Your task to perform on an android device: install app "Messages" Image 0: 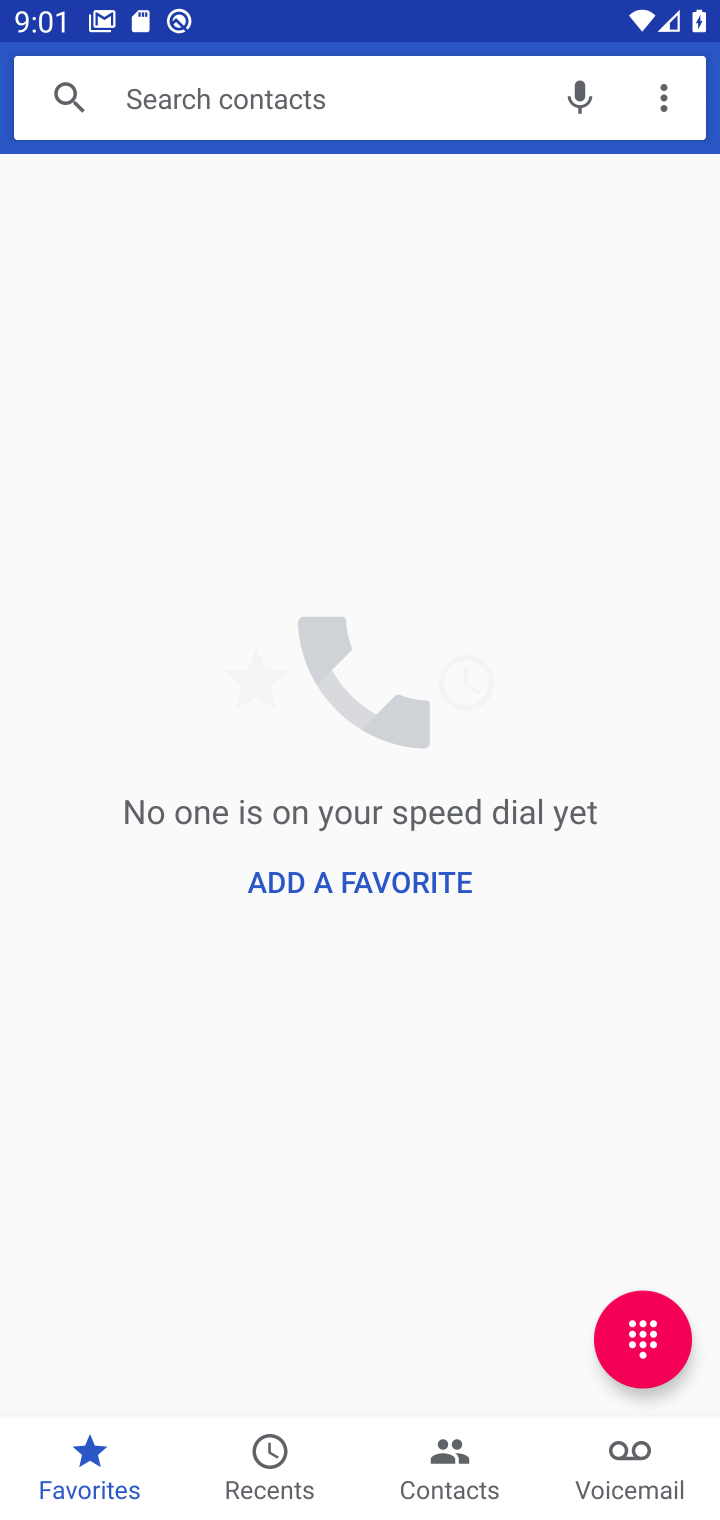
Step 0: press home button
Your task to perform on an android device: install app "Messages" Image 1: 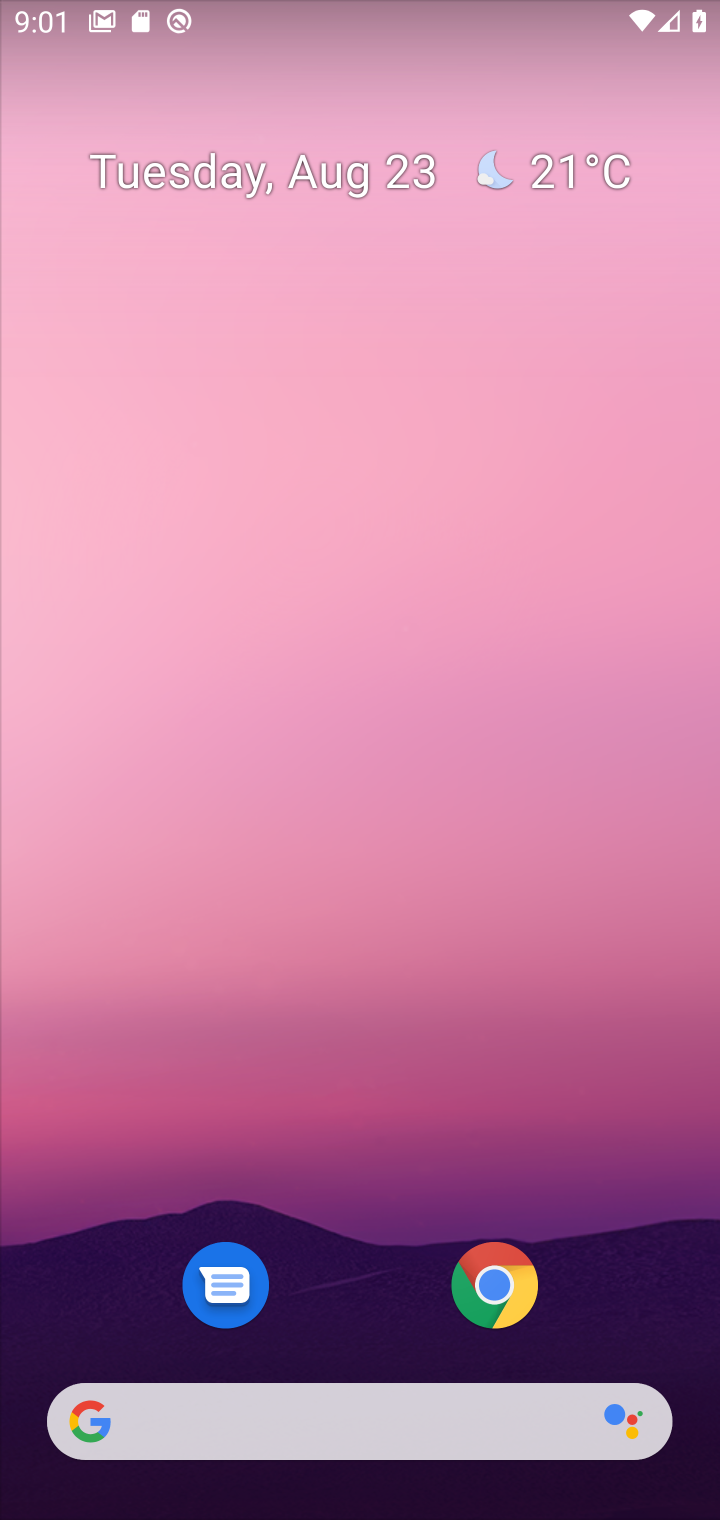
Step 1: drag from (627, 1072) to (574, 261)
Your task to perform on an android device: install app "Messages" Image 2: 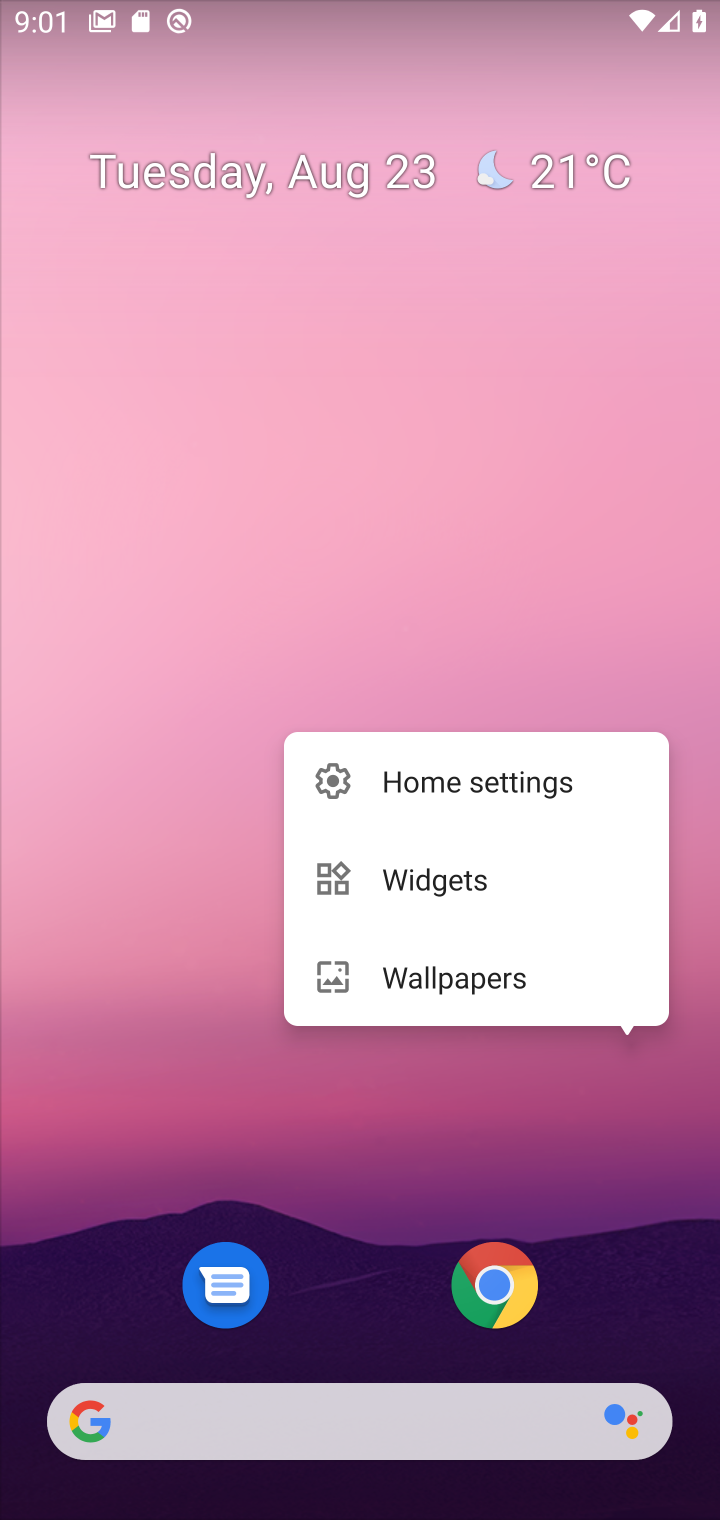
Step 2: click (675, 1329)
Your task to perform on an android device: install app "Messages" Image 3: 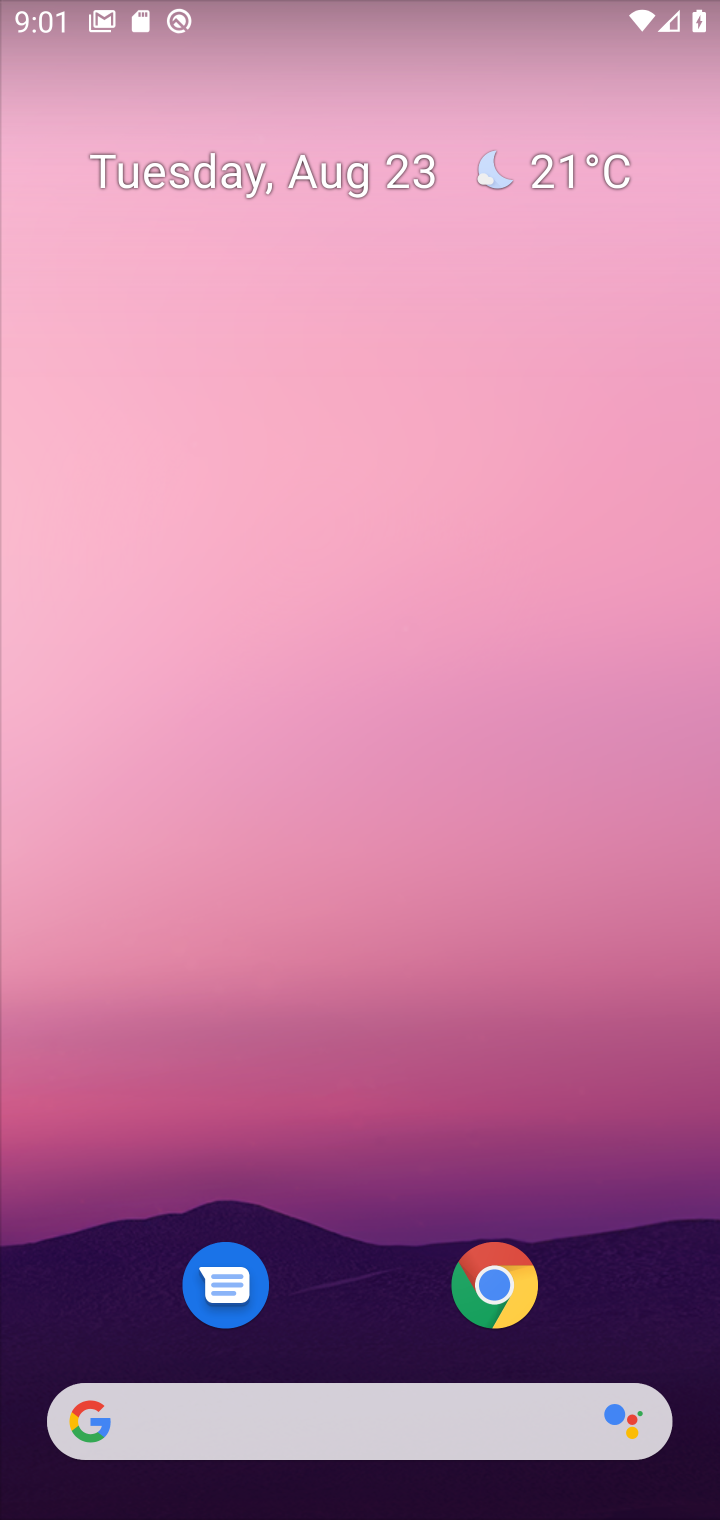
Step 3: drag from (686, 1334) to (564, 151)
Your task to perform on an android device: install app "Messages" Image 4: 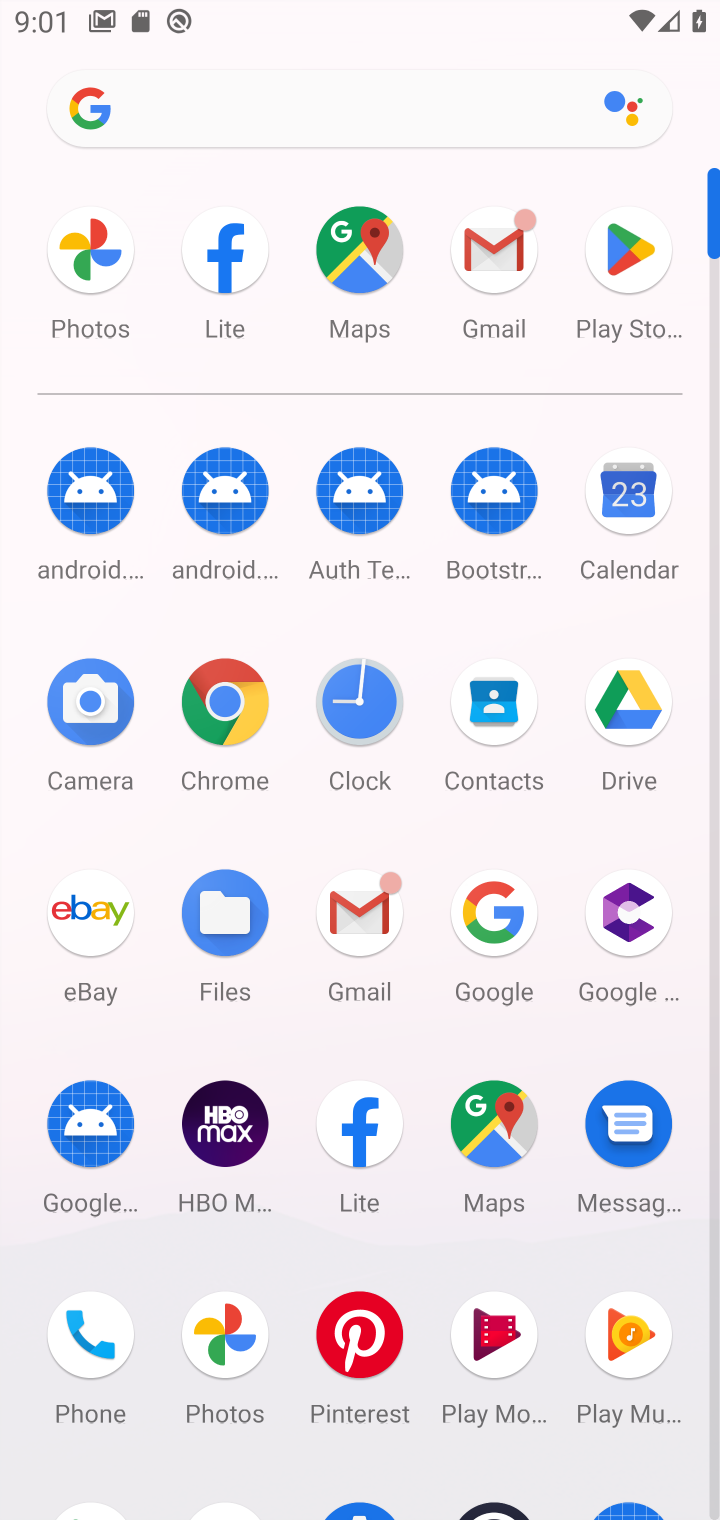
Step 4: drag from (544, 1248) to (539, 641)
Your task to perform on an android device: install app "Messages" Image 5: 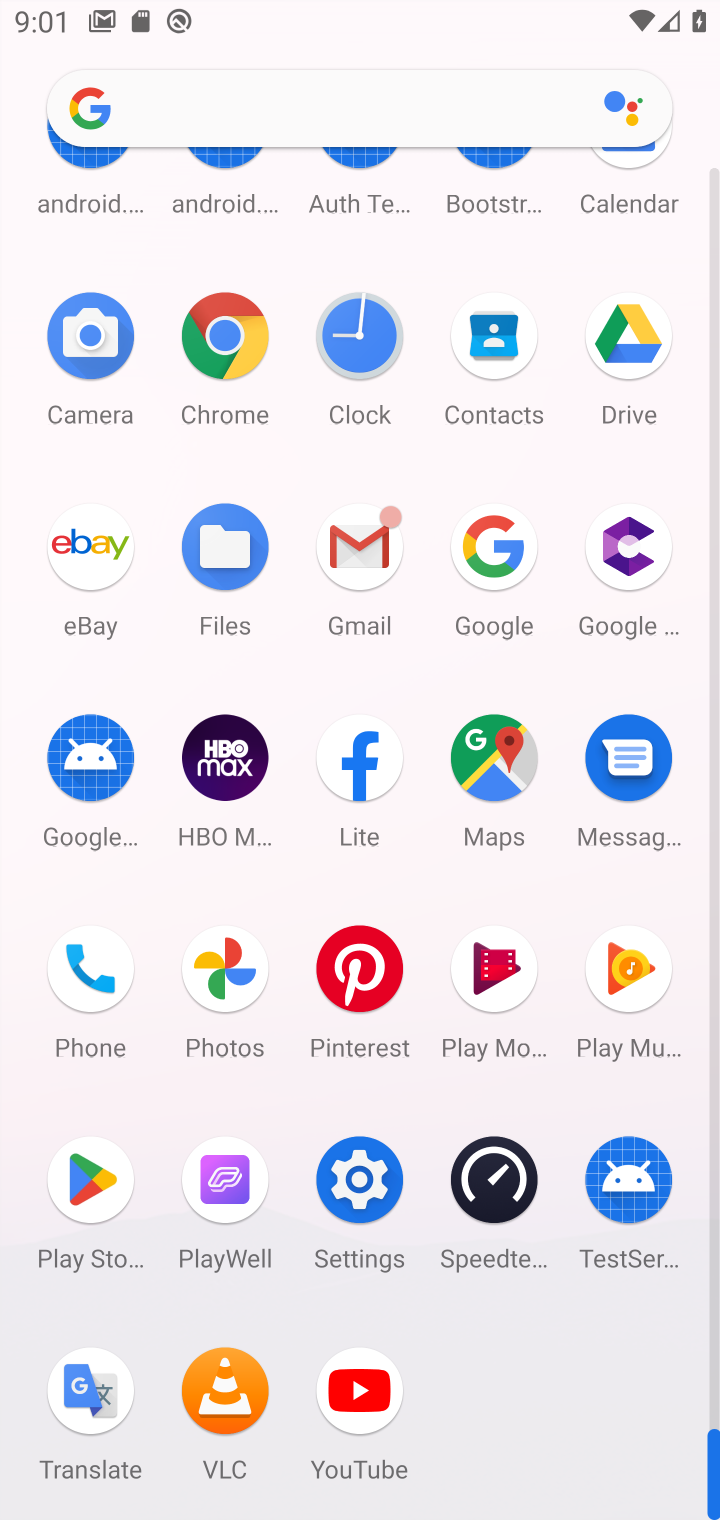
Step 5: click (98, 1183)
Your task to perform on an android device: install app "Messages" Image 6: 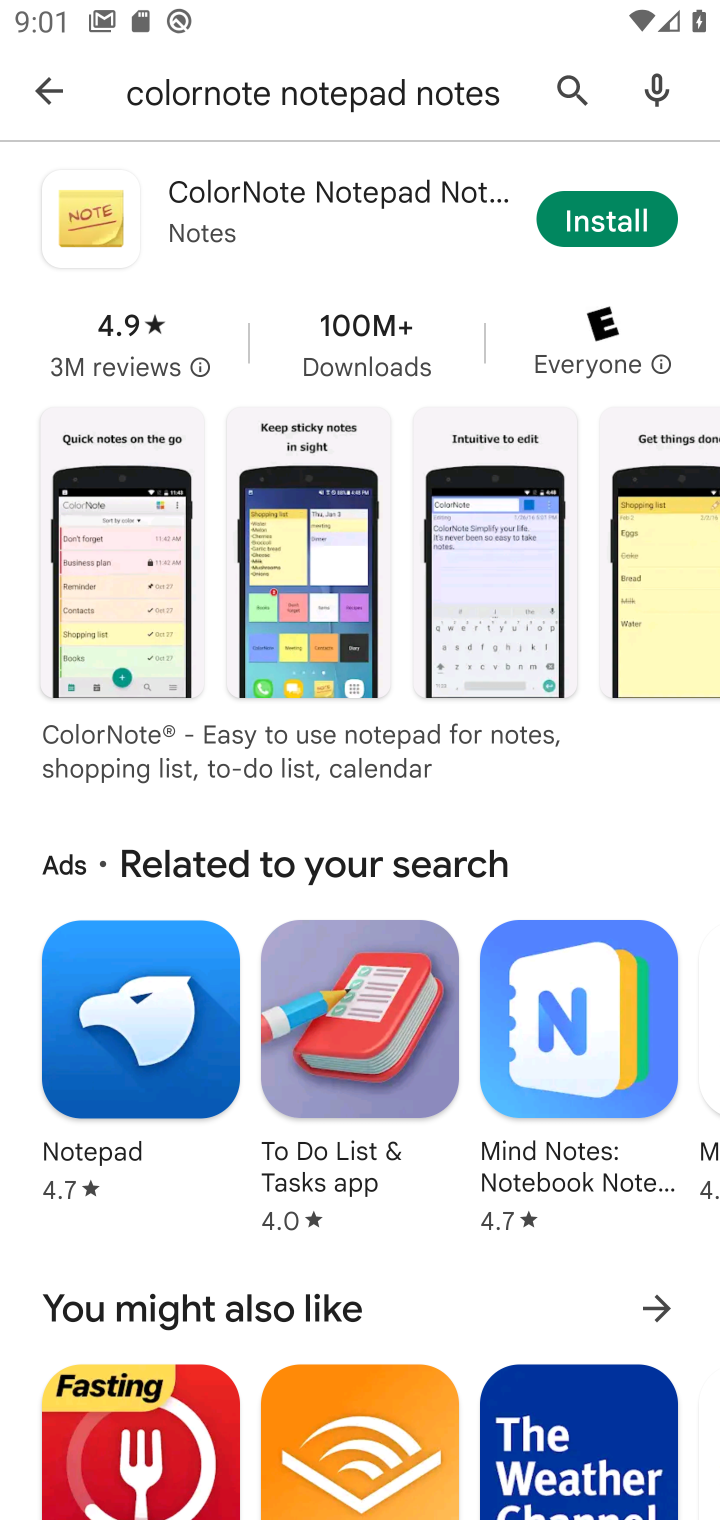
Step 6: click (568, 91)
Your task to perform on an android device: install app "Messages" Image 7: 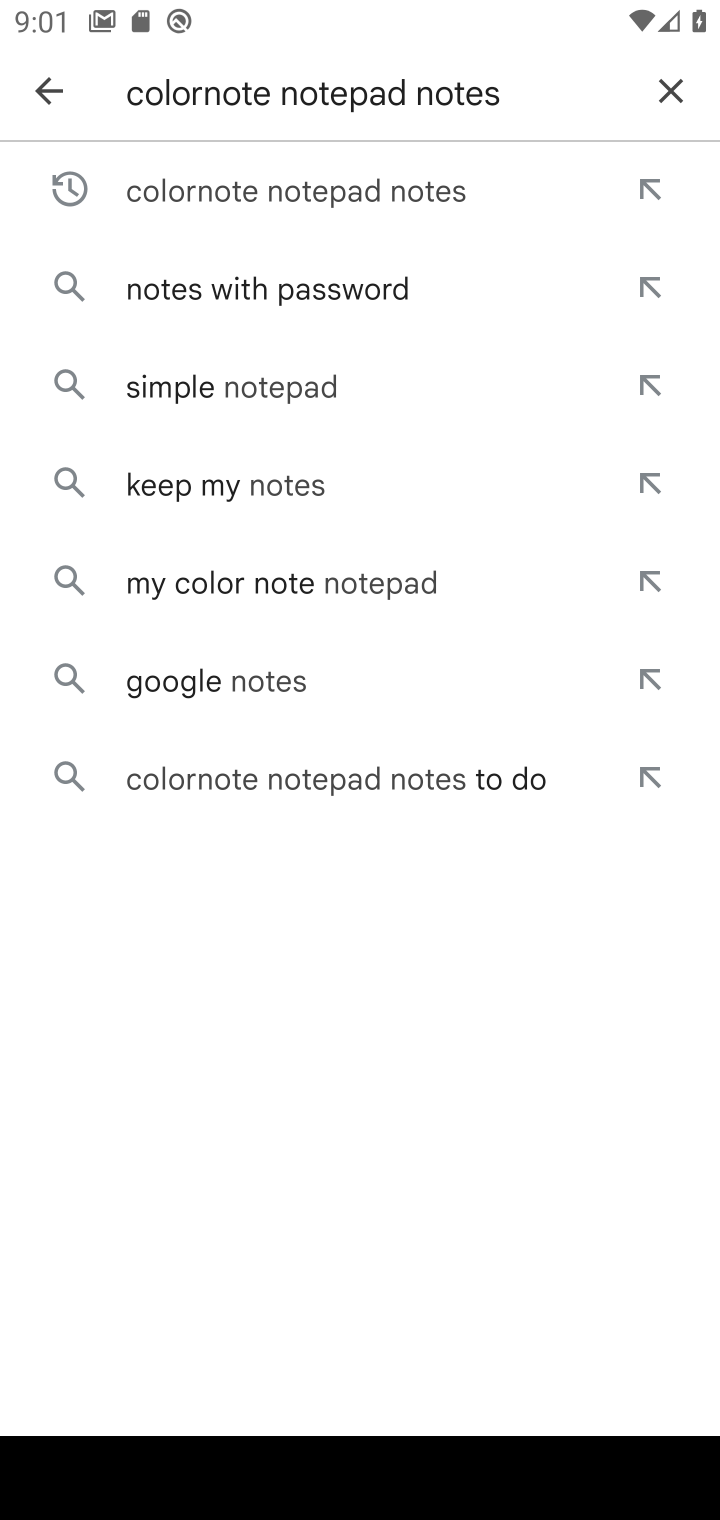
Step 7: click (667, 83)
Your task to perform on an android device: install app "Messages" Image 8: 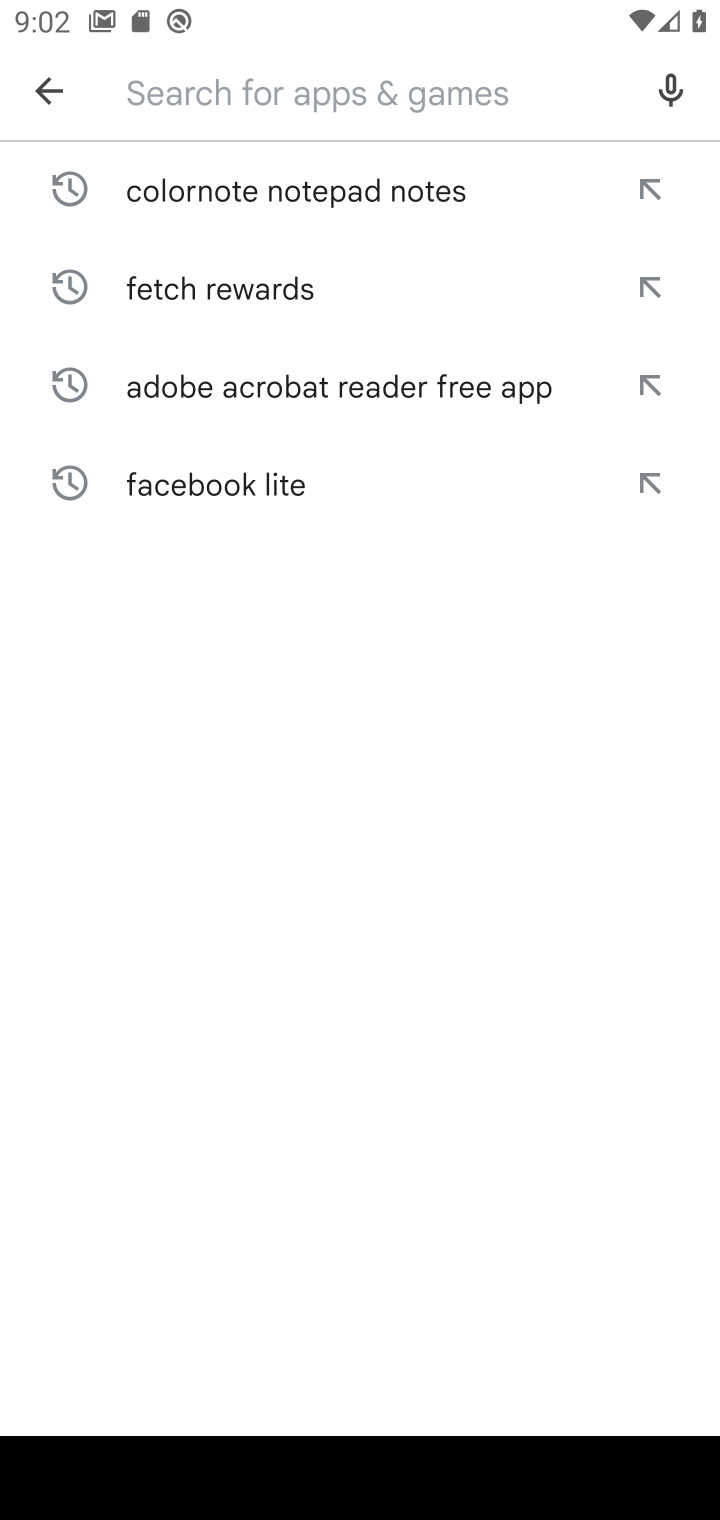
Step 8: type "Messages"
Your task to perform on an android device: install app "Messages" Image 9: 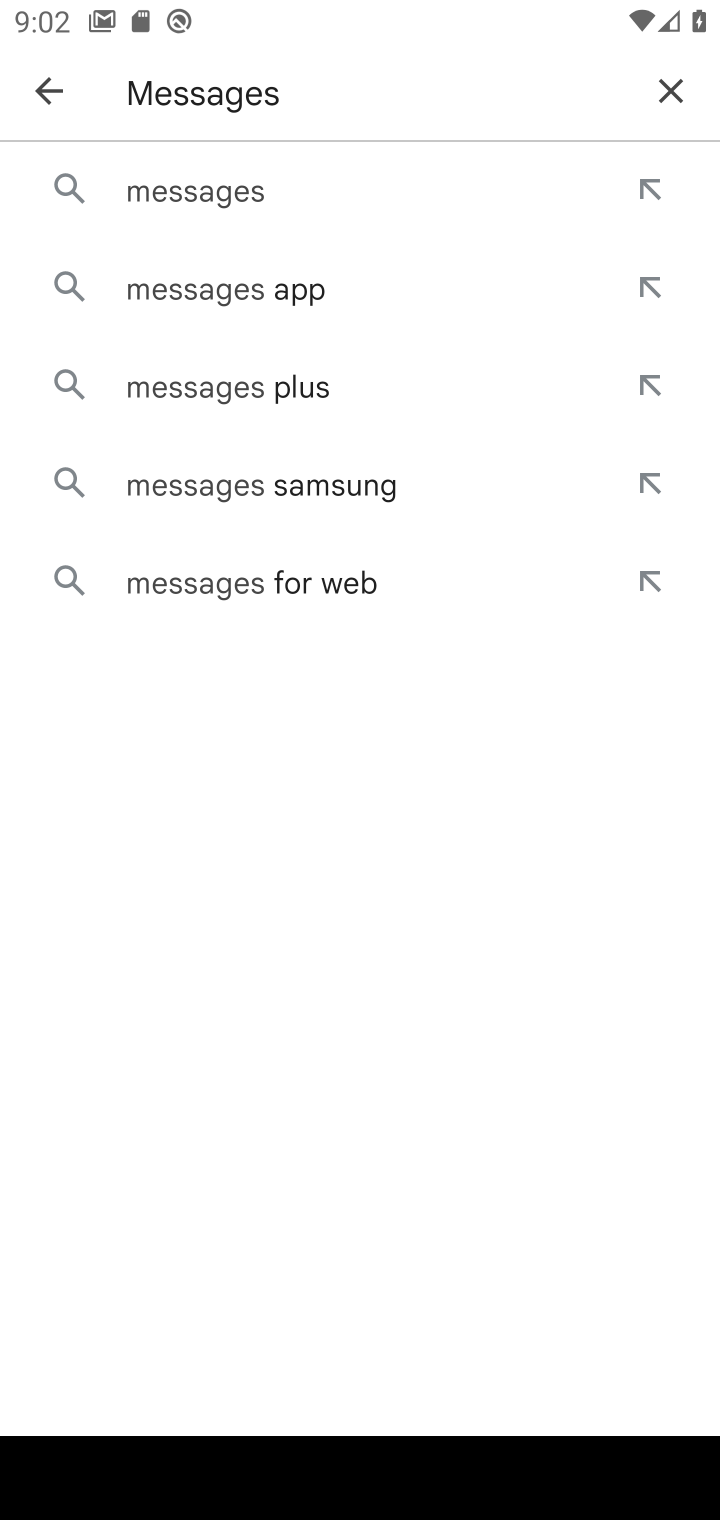
Step 9: click (183, 189)
Your task to perform on an android device: install app "Messages" Image 10: 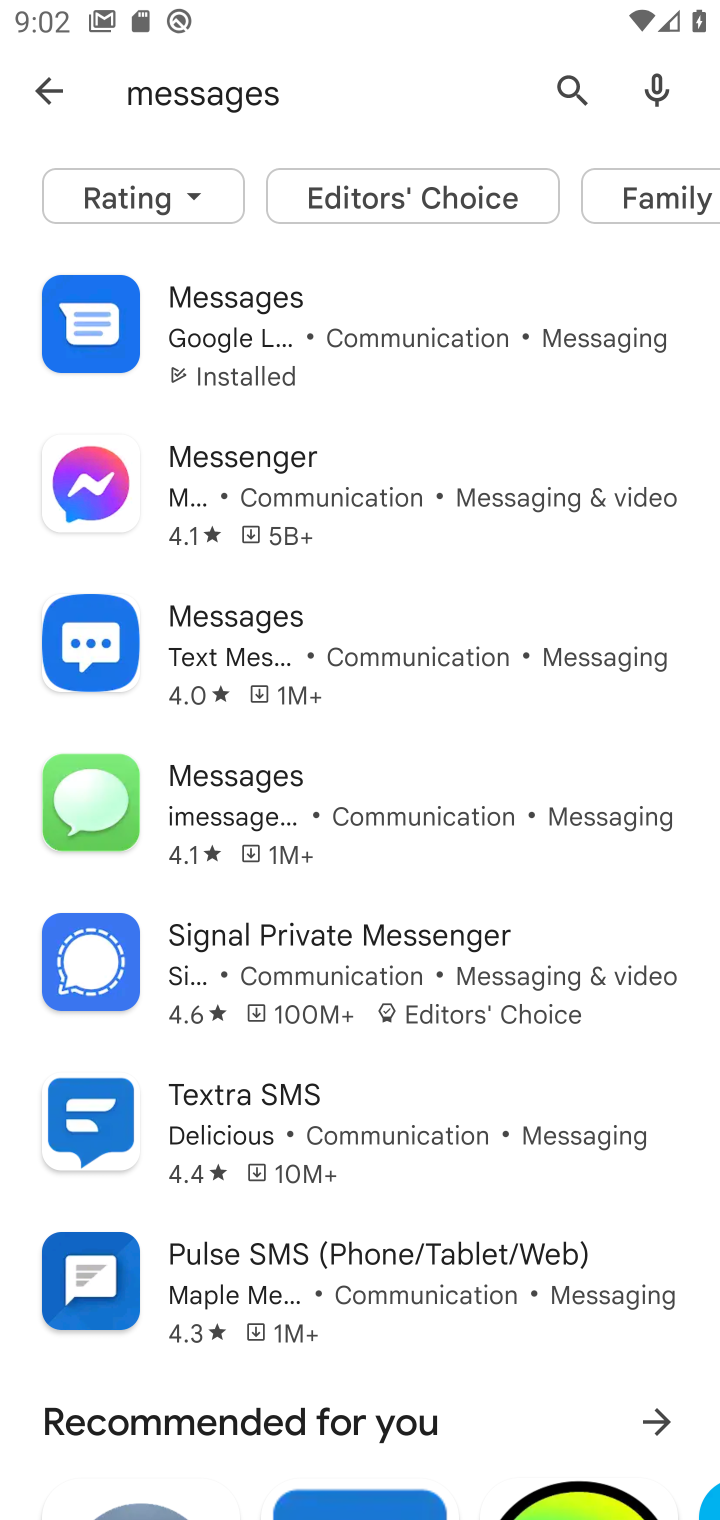
Step 10: click (218, 325)
Your task to perform on an android device: install app "Messages" Image 11: 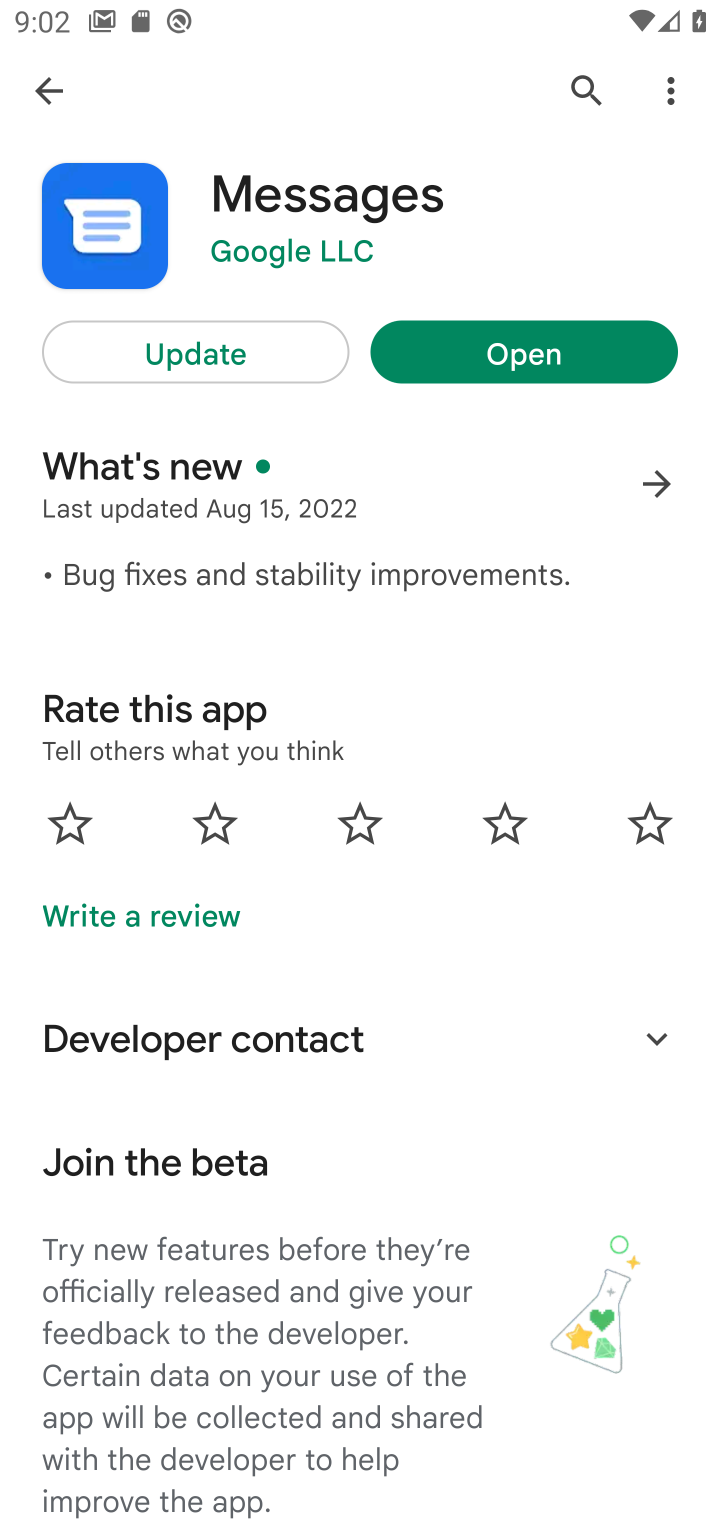
Step 11: task complete